Your task to perform on an android device: turn off picture-in-picture Image 0: 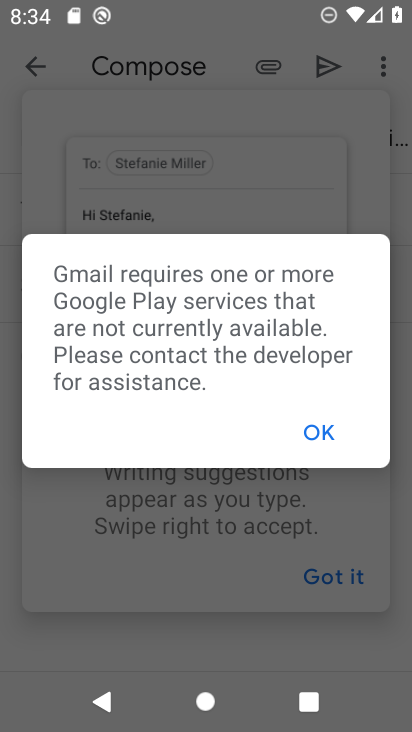
Step 0: press home button
Your task to perform on an android device: turn off picture-in-picture Image 1: 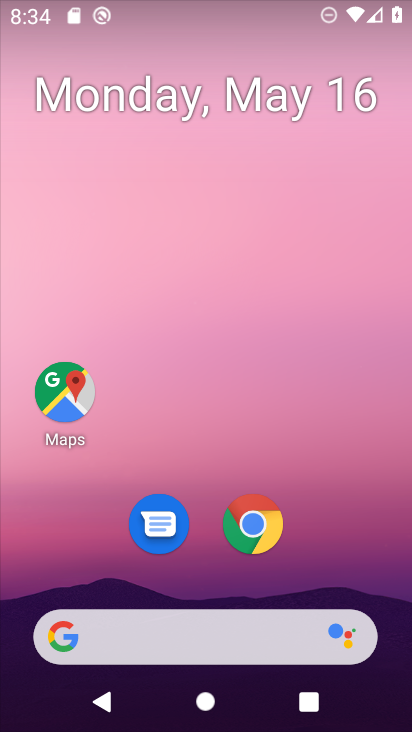
Step 1: click (245, 524)
Your task to perform on an android device: turn off picture-in-picture Image 2: 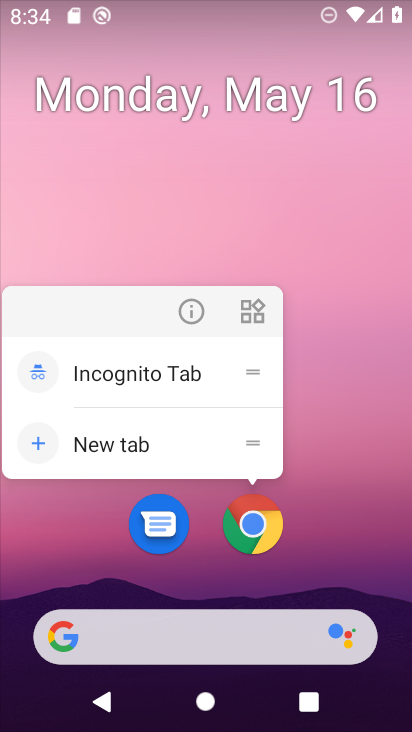
Step 2: click (192, 303)
Your task to perform on an android device: turn off picture-in-picture Image 3: 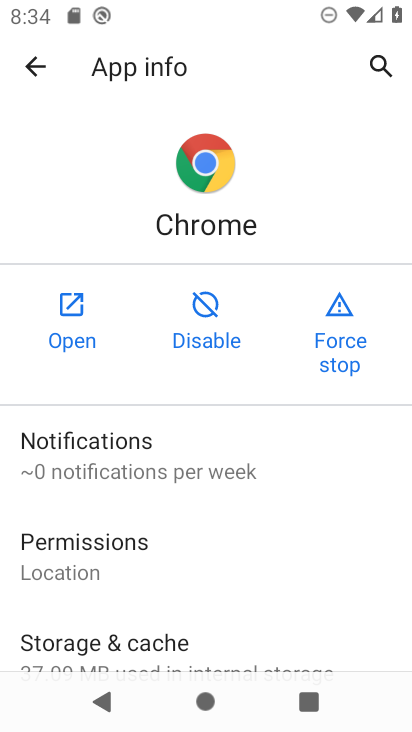
Step 3: drag from (218, 568) to (275, 258)
Your task to perform on an android device: turn off picture-in-picture Image 4: 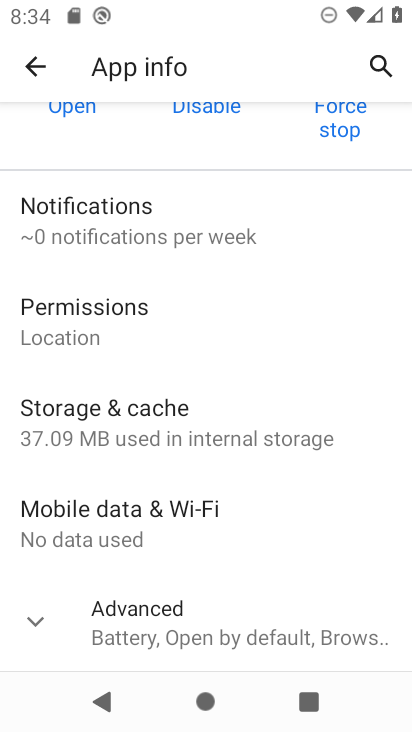
Step 4: click (35, 619)
Your task to perform on an android device: turn off picture-in-picture Image 5: 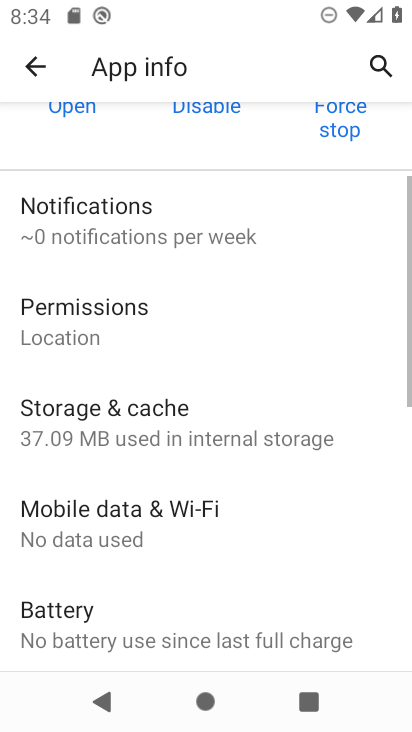
Step 5: drag from (219, 564) to (277, 279)
Your task to perform on an android device: turn off picture-in-picture Image 6: 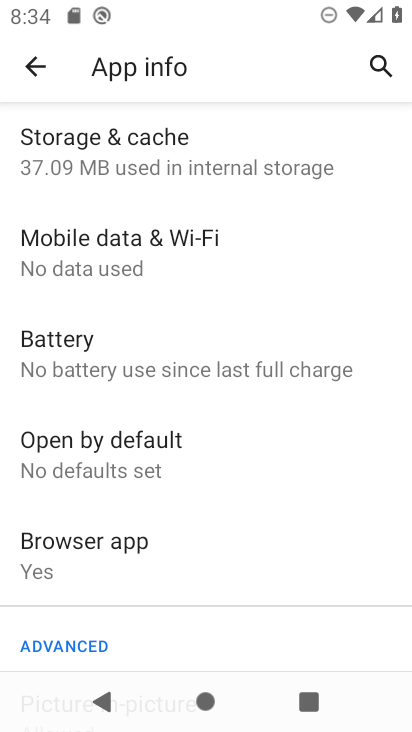
Step 6: drag from (217, 518) to (228, 315)
Your task to perform on an android device: turn off picture-in-picture Image 7: 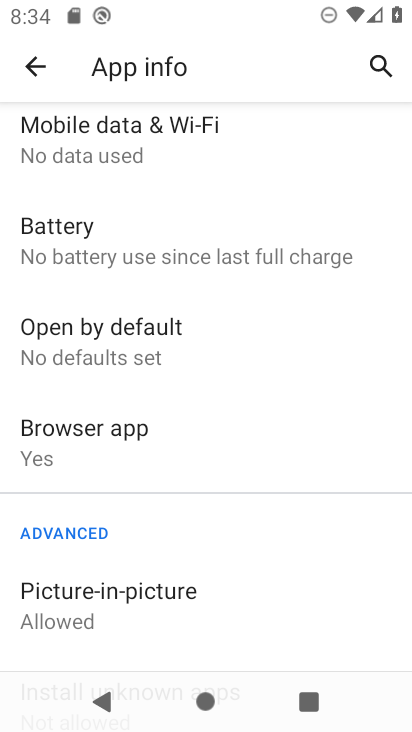
Step 7: click (110, 598)
Your task to perform on an android device: turn off picture-in-picture Image 8: 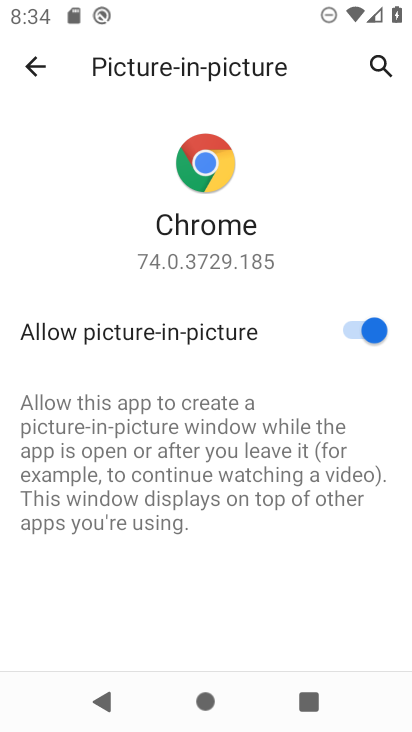
Step 8: click (355, 323)
Your task to perform on an android device: turn off picture-in-picture Image 9: 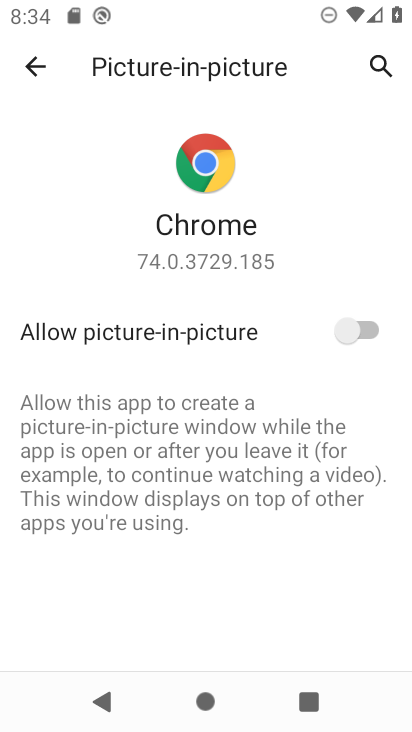
Step 9: task complete